Your task to perform on an android device: make emails show in primary in the gmail app Image 0: 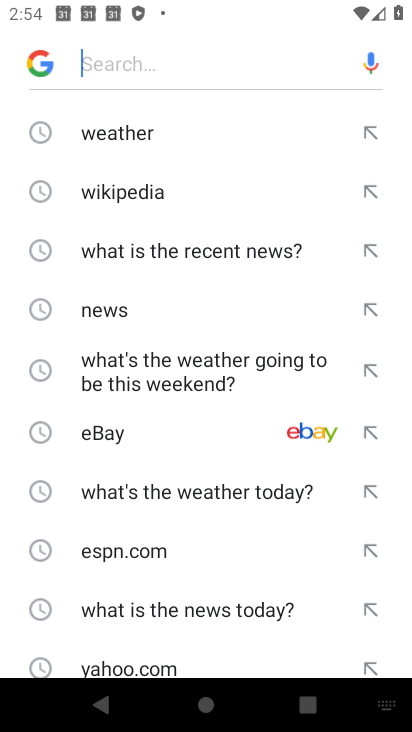
Step 0: drag from (164, 577) to (224, 241)
Your task to perform on an android device: make emails show in primary in the gmail app Image 1: 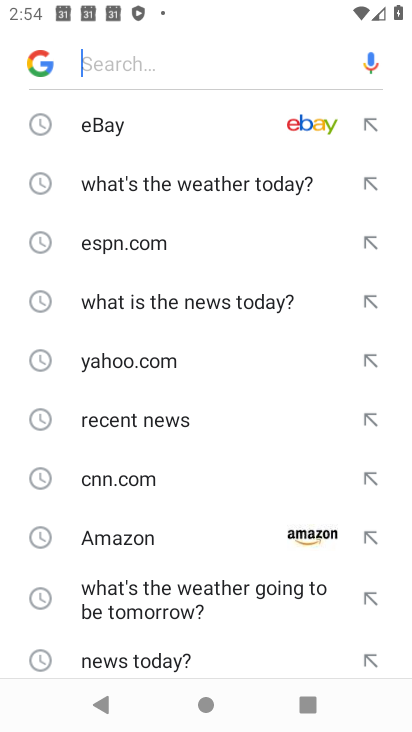
Step 1: drag from (196, 296) to (144, 730)
Your task to perform on an android device: make emails show in primary in the gmail app Image 2: 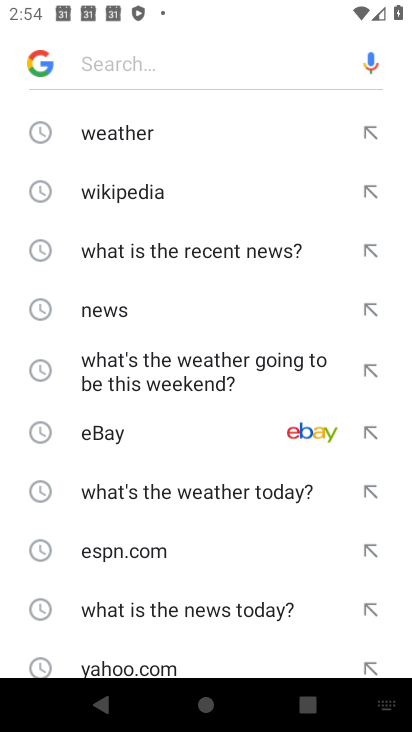
Step 2: drag from (213, 215) to (247, 639)
Your task to perform on an android device: make emails show in primary in the gmail app Image 3: 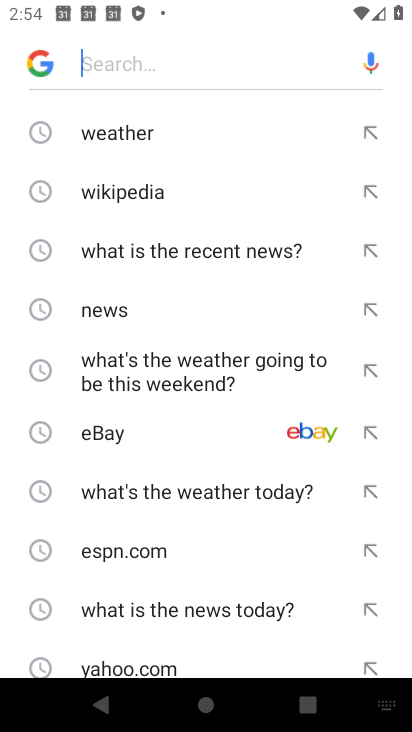
Step 3: press home button
Your task to perform on an android device: make emails show in primary in the gmail app Image 4: 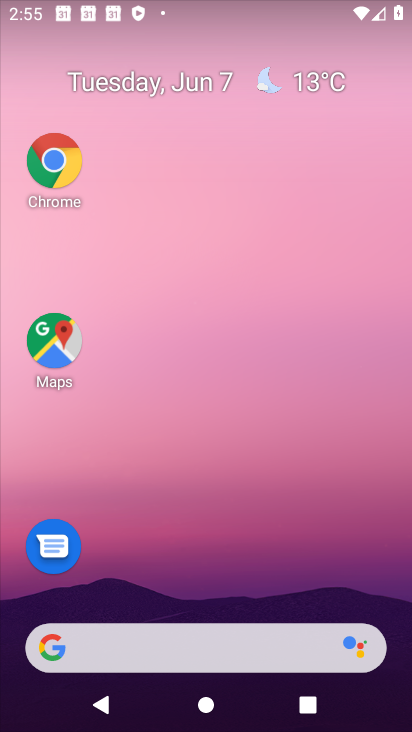
Step 4: drag from (210, 580) to (366, 82)
Your task to perform on an android device: make emails show in primary in the gmail app Image 5: 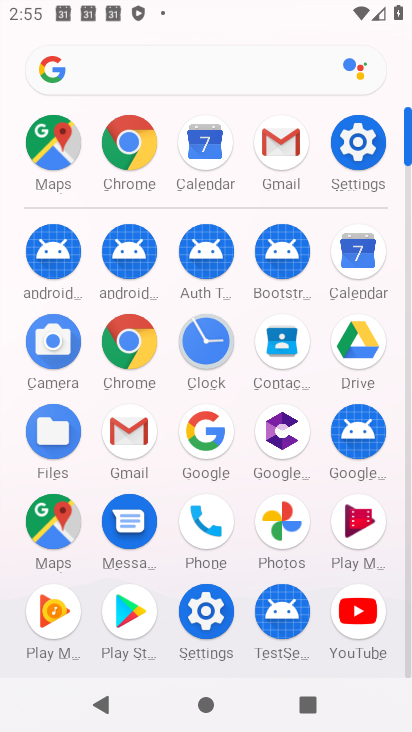
Step 5: click (133, 432)
Your task to perform on an android device: make emails show in primary in the gmail app Image 6: 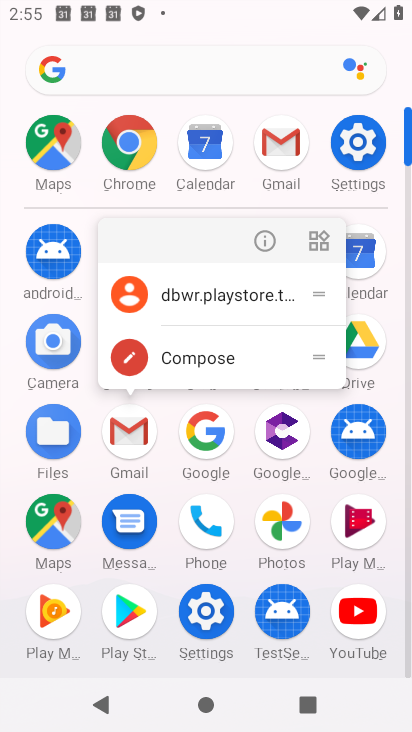
Step 6: click (261, 231)
Your task to perform on an android device: make emails show in primary in the gmail app Image 7: 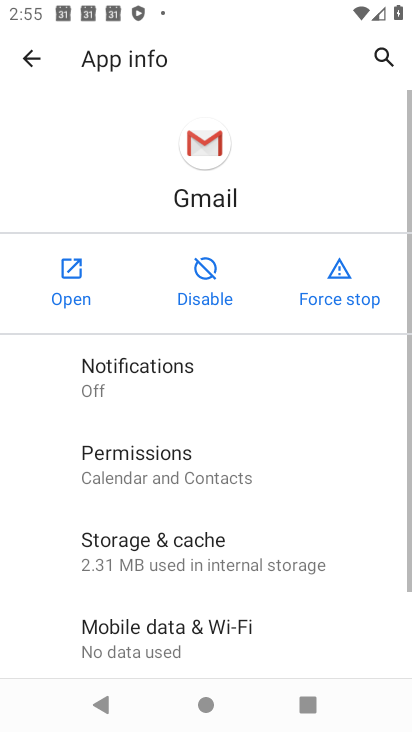
Step 7: click (60, 283)
Your task to perform on an android device: make emails show in primary in the gmail app Image 8: 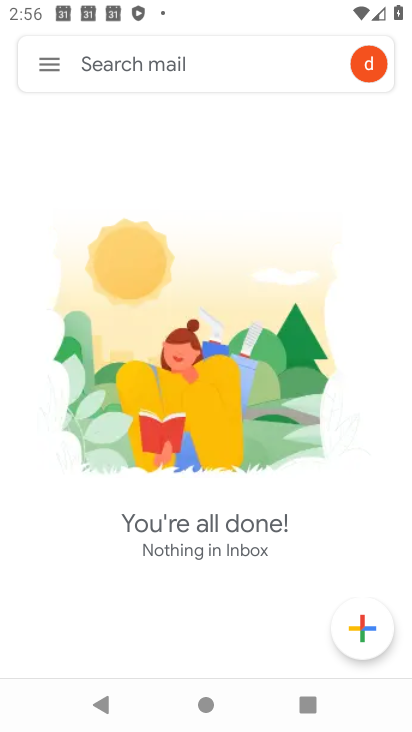
Step 8: click (36, 26)
Your task to perform on an android device: make emails show in primary in the gmail app Image 9: 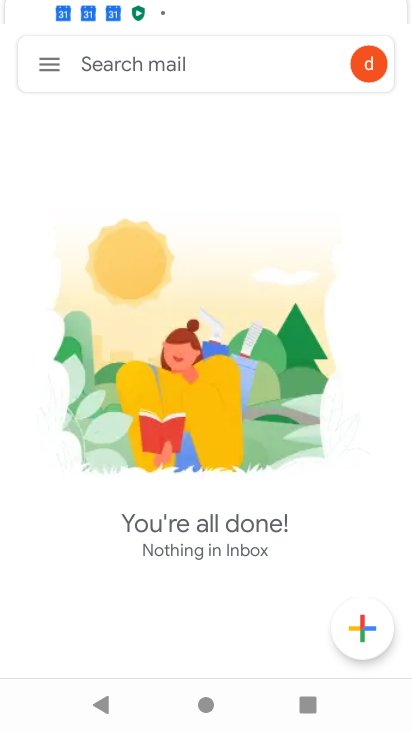
Step 9: click (57, 74)
Your task to perform on an android device: make emails show in primary in the gmail app Image 10: 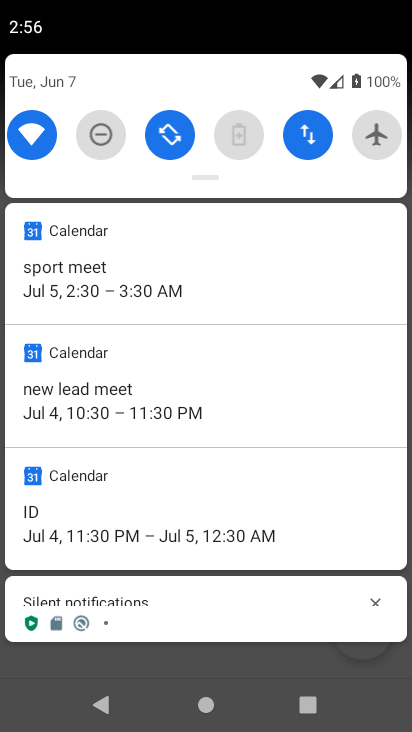
Step 10: press back button
Your task to perform on an android device: make emails show in primary in the gmail app Image 11: 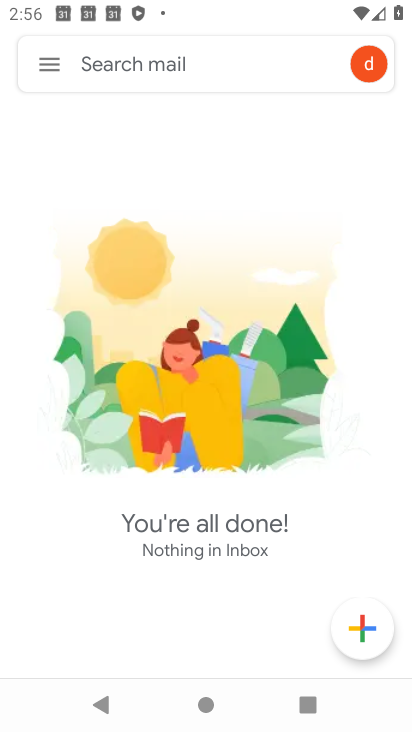
Step 11: click (72, 82)
Your task to perform on an android device: make emails show in primary in the gmail app Image 12: 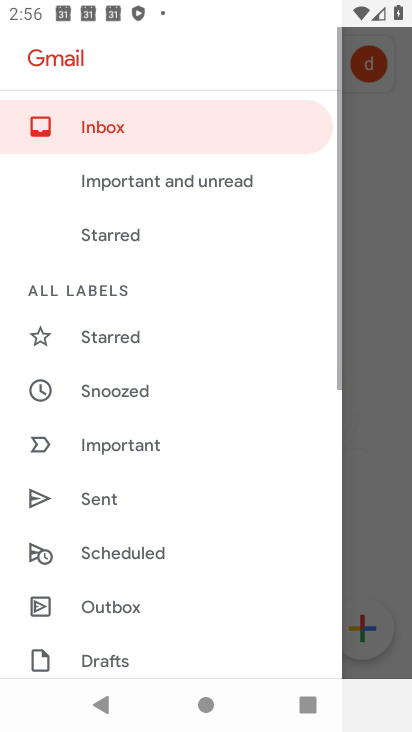
Step 12: click (93, 145)
Your task to perform on an android device: make emails show in primary in the gmail app Image 13: 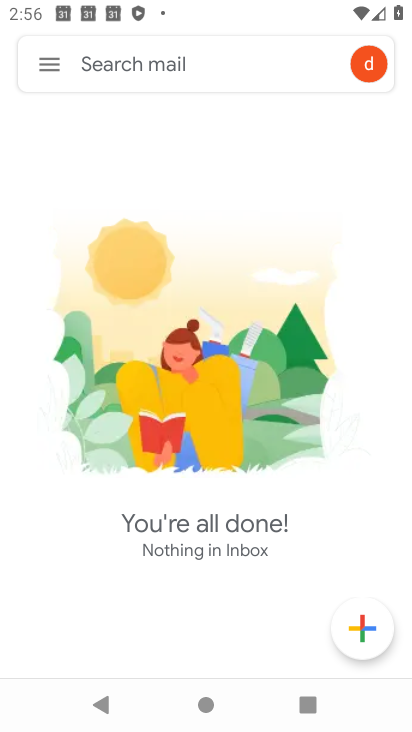
Step 13: task complete